Your task to perform on an android device: toggle improve location accuracy Image 0: 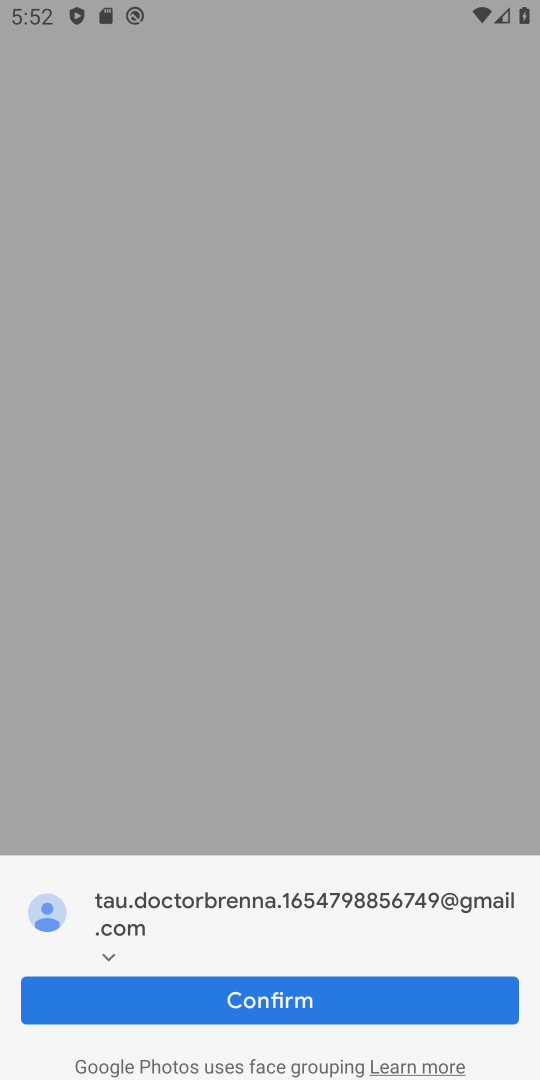
Step 0: press home button
Your task to perform on an android device: toggle improve location accuracy Image 1: 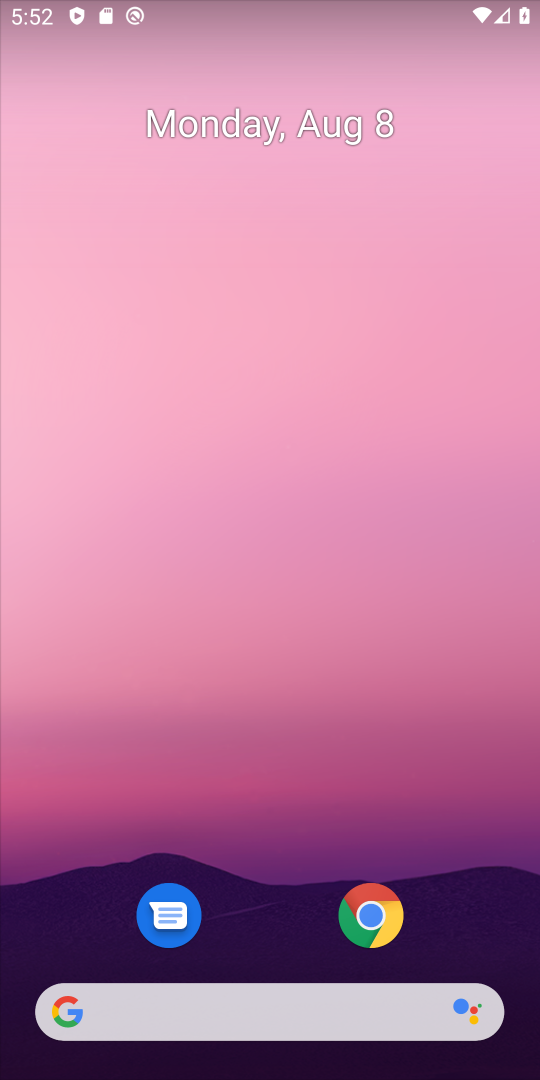
Step 1: drag from (272, 913) to (235, 213)
Your task to perform on an android device: toggle improve location accuracy Image 2: 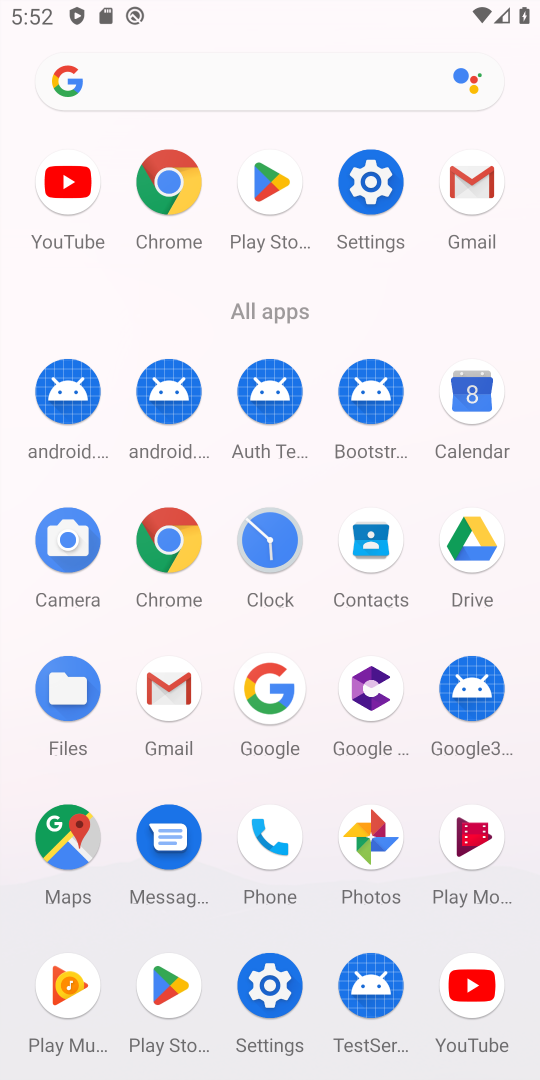
Step 2: click (157, 461)
Your task to perform on an android device: toggle improve location accuracy Image 3: 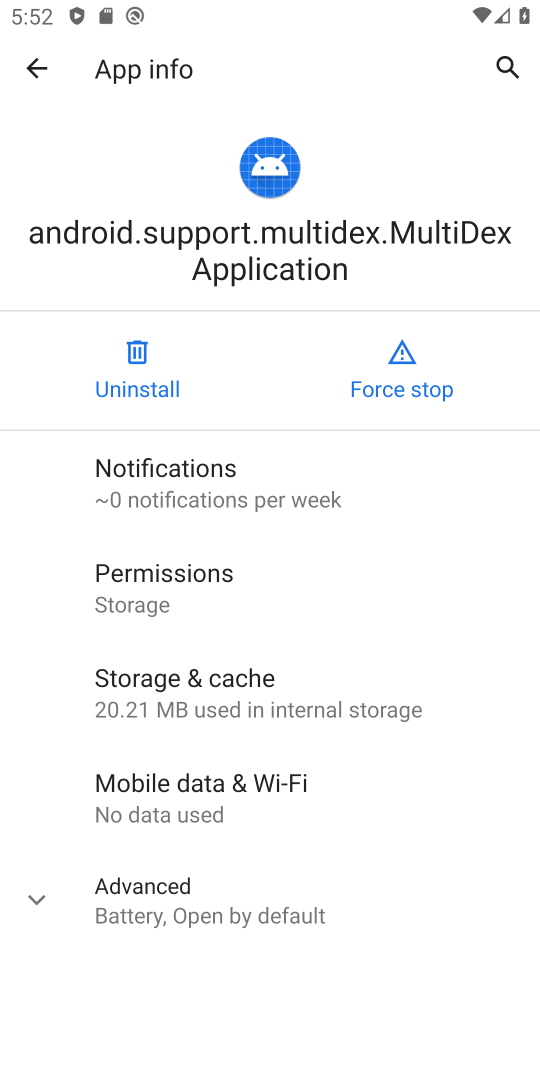
Step 3: click (41, 62)
Your task to perform on an android device: toggle improve location accuracy Image 4: 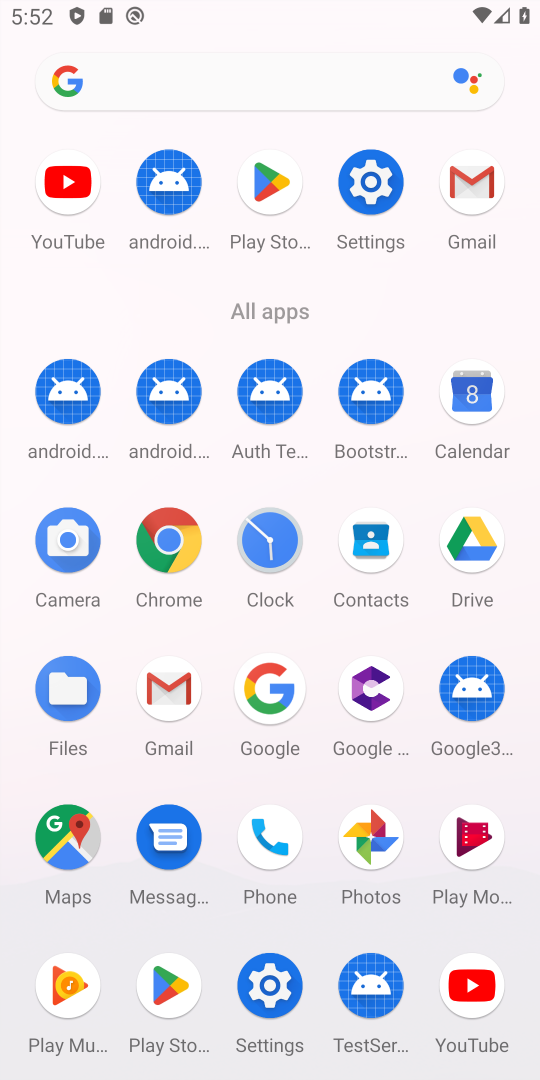
Step 4: click (373, 182)
Your task to perform on an android device: toggle improve location accuracy Image 5: 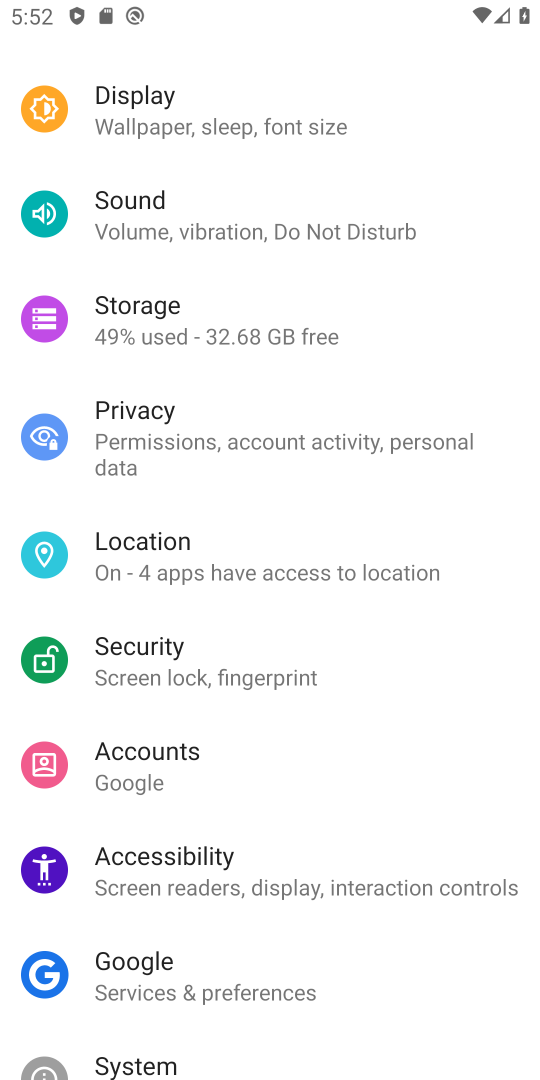
Step 5: click (182, 549)
Your task to perform on an android device: toggle improve location accuracy Image 6: 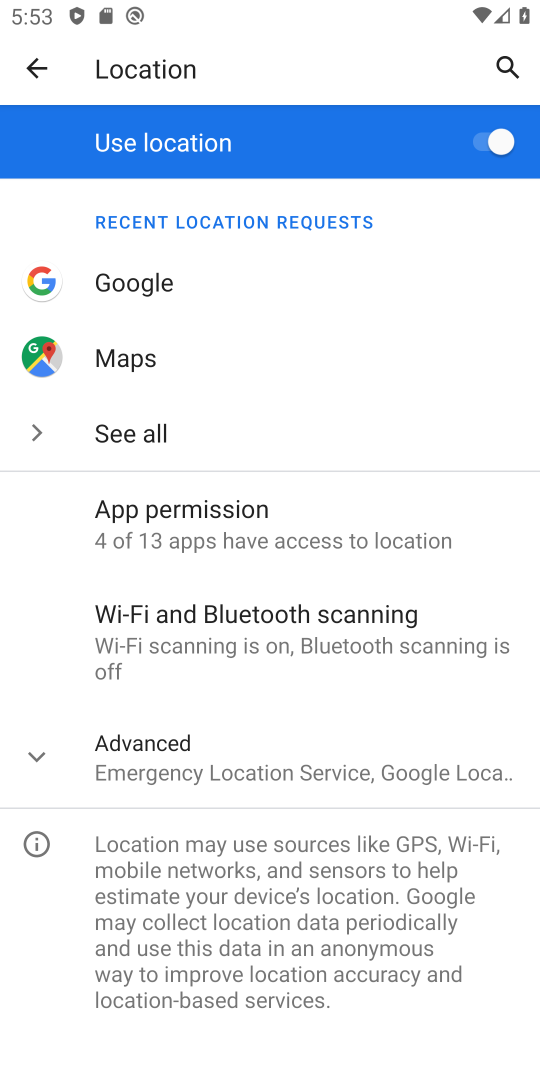
Step 6: click (167, 740)
Your task to perform on an android device: toggle improve location accuracy Image 7: 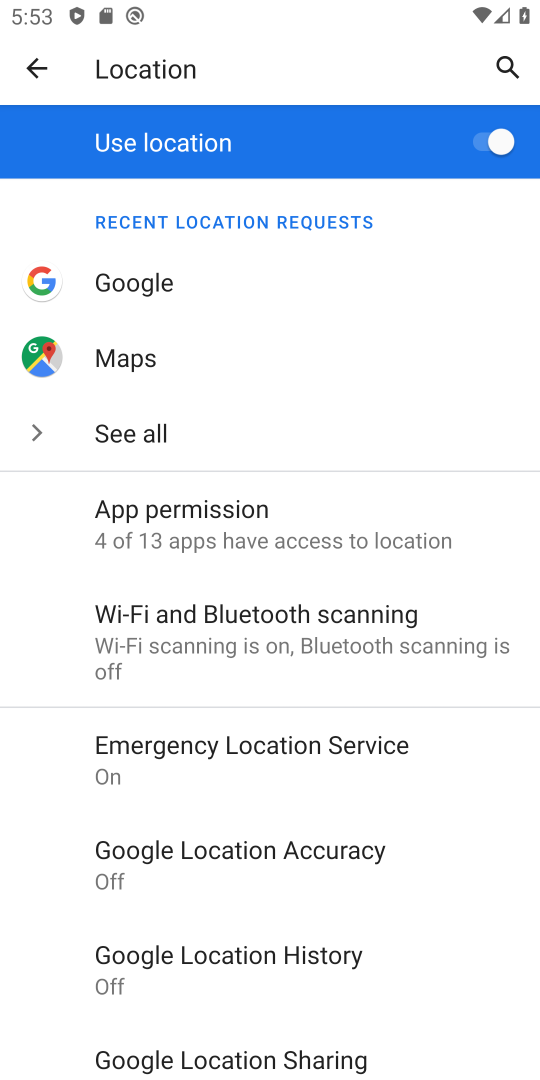
Step 7: click (242, 839)
Your task to perform on an android device: toggle improve location accuracy Image 8: 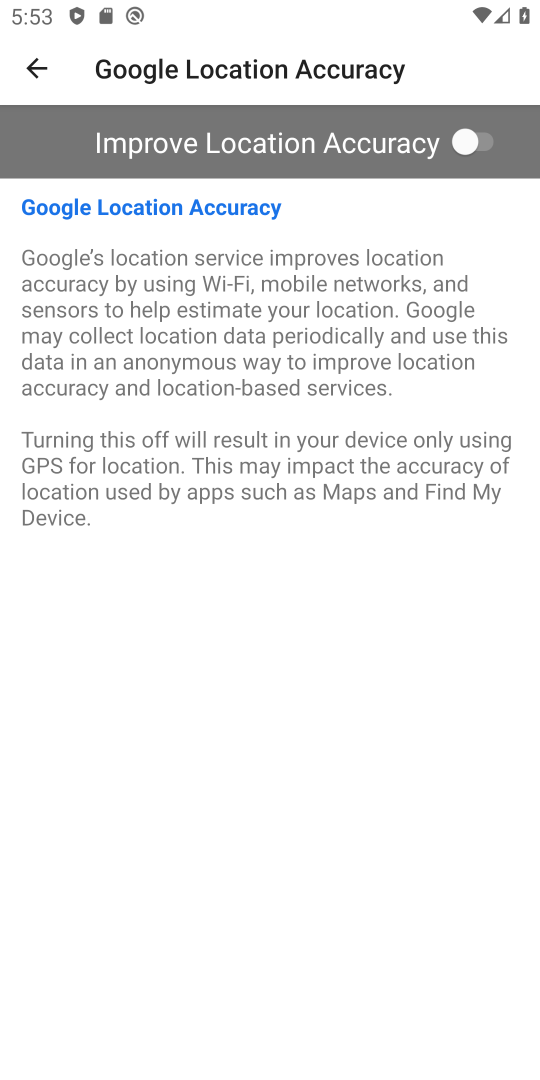
Step 8: click (466, 138)
Your task to perform on an android device: toggle improve location accuracy Image 9: 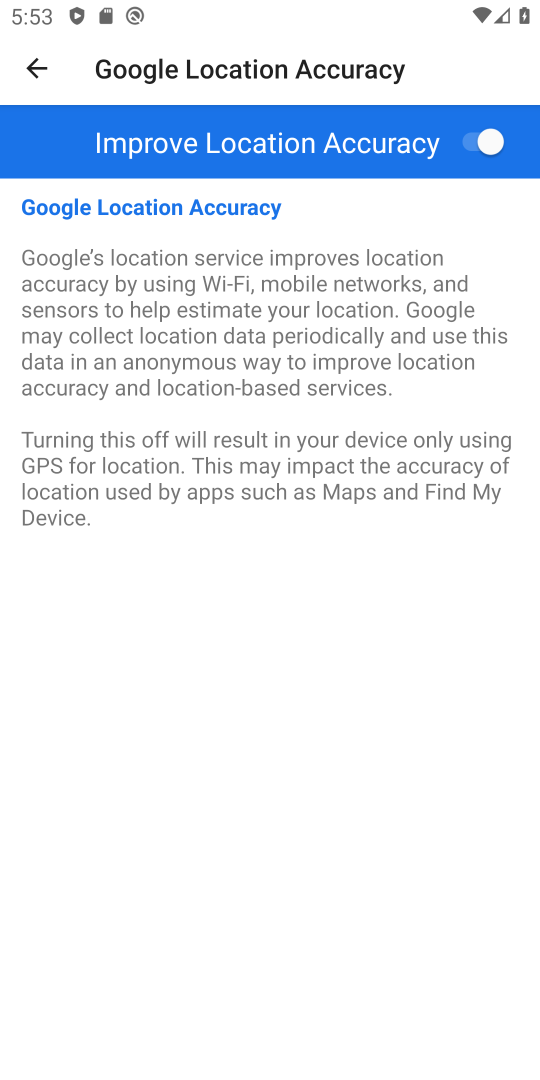
Step 9: task complete